Your task to perform on an android device: change the clock display to show seconds Image 0: 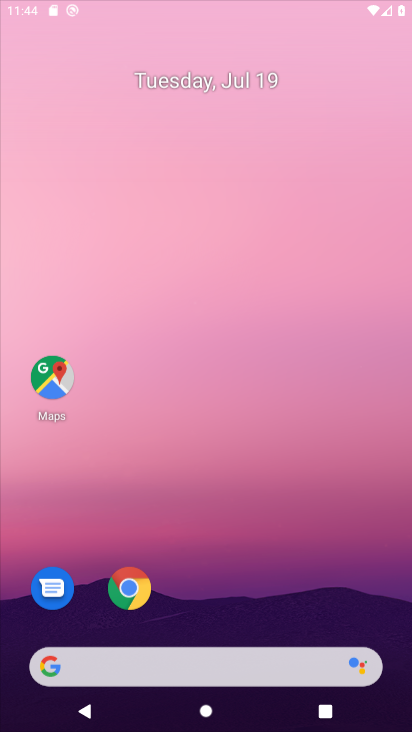
Step 0: drag from (234, 107) to (305, 10)
Your task to perform on an android device: change the clock display to show seconds Image 1: 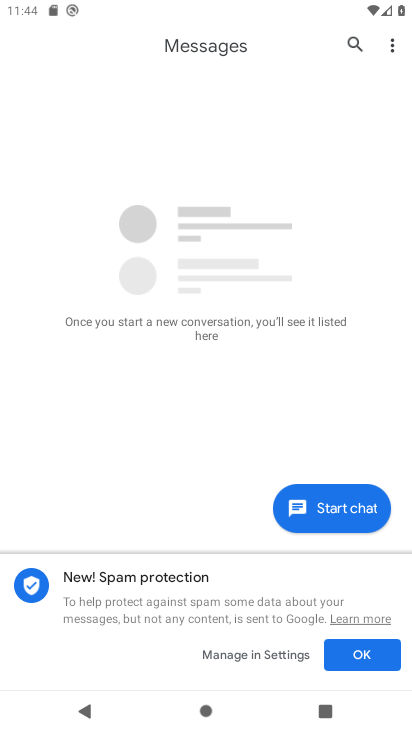
Step 1: press home button
Your task to perform on an android device: change the clock display to show seconds Image 2: 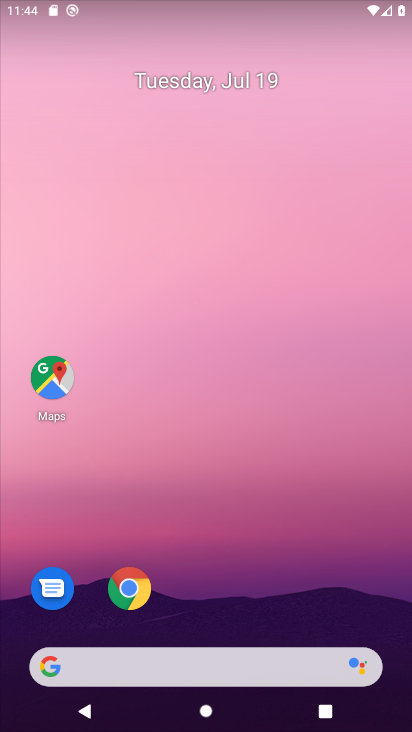
Step 2: drag from (194, 618) to (256, 0)
Your task to perform on an android device: change the clock display to show seconds Image 3: 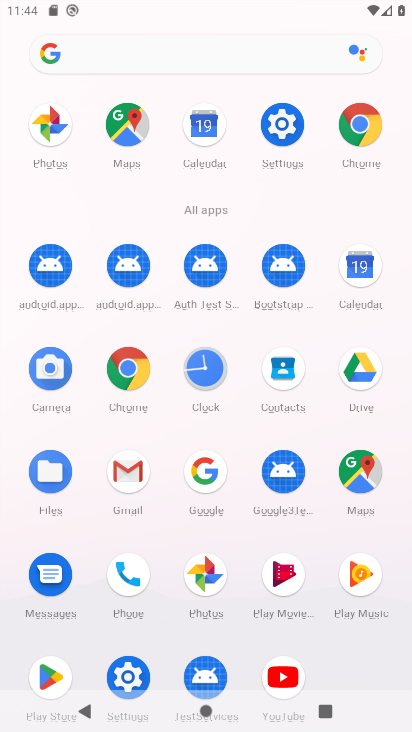
Step 3: click (199, 383)
Your task to perform on an android device: change the clock display to show seconds Image 4: 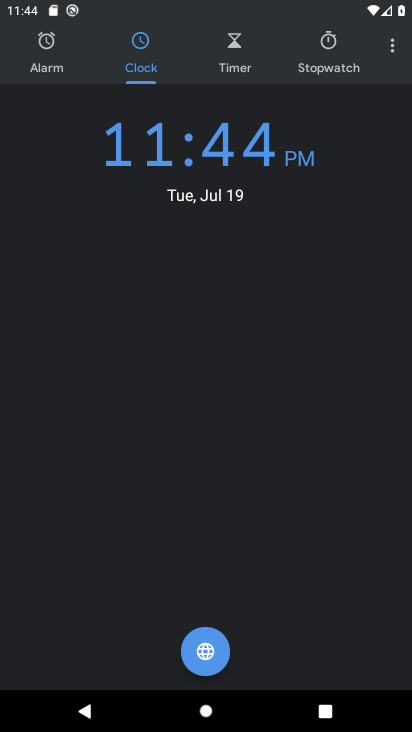
Step 4: click (390, 47)
Your task to perform on an android device: change the clock display to show seconds Image 5: 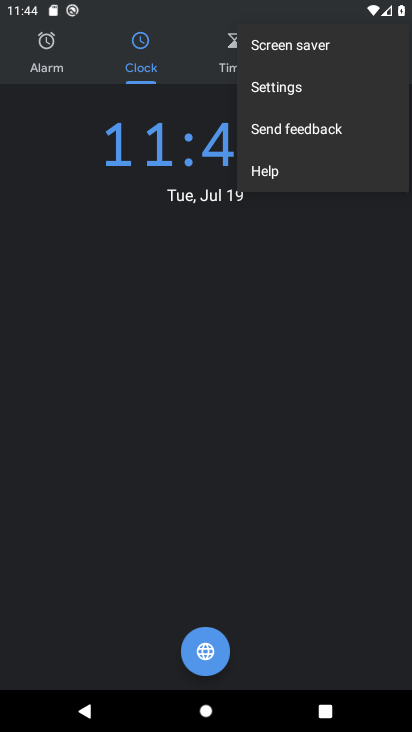
Step 5: click (264, 95)
Your task to perform on an android device: change the clock display to show seconds Image 6: 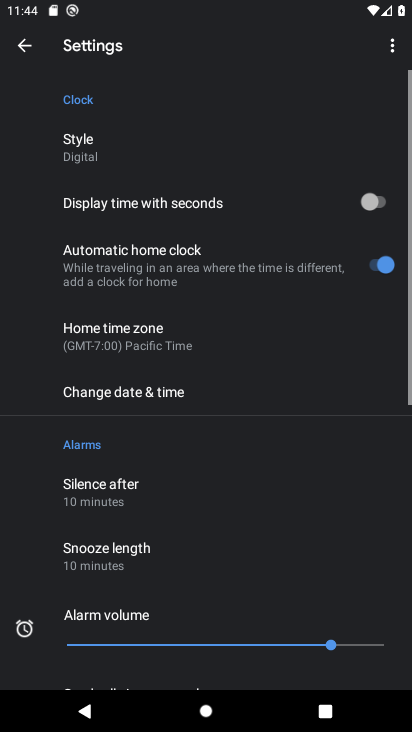
Step 6: click (80, 153)
Your task to perform on an android device: change the clock display to show seconds Image 7: 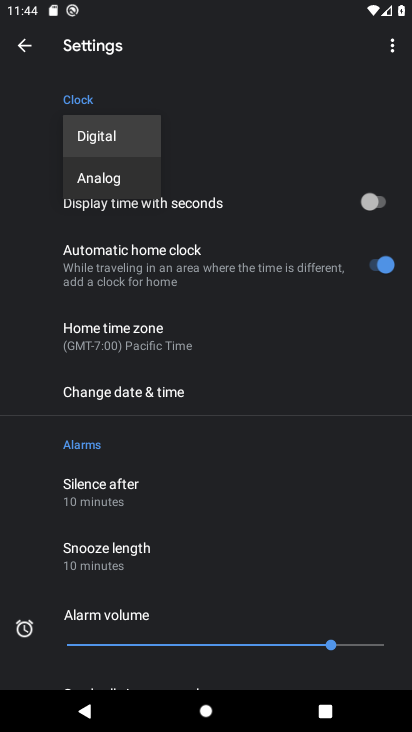
Step 7: click (126, 181)
Your task to perform on an android device: change the clock display to show seconds Image 8: 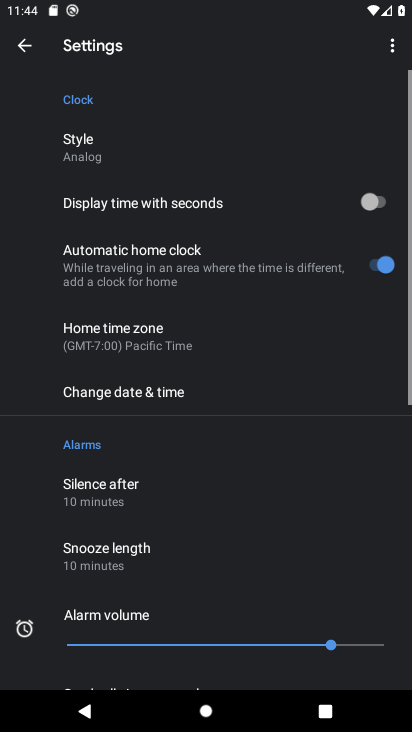
Step 8: click (357, 203)
Your task to perform on an android device: change the clock display to show seconds Image 9: 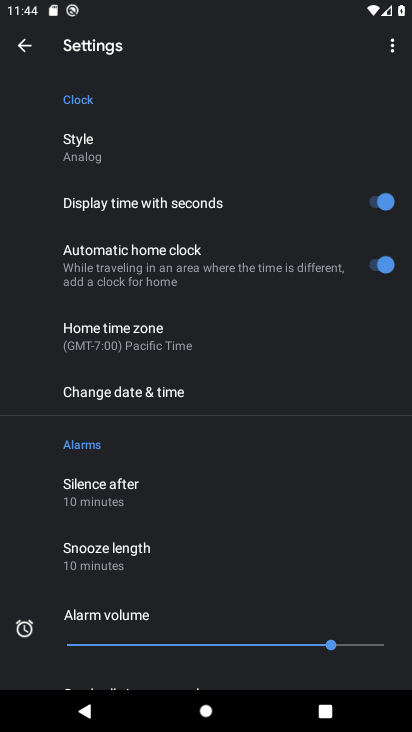
Step 9: task complete